Your task to perform on an android device: check data usage Image 0: 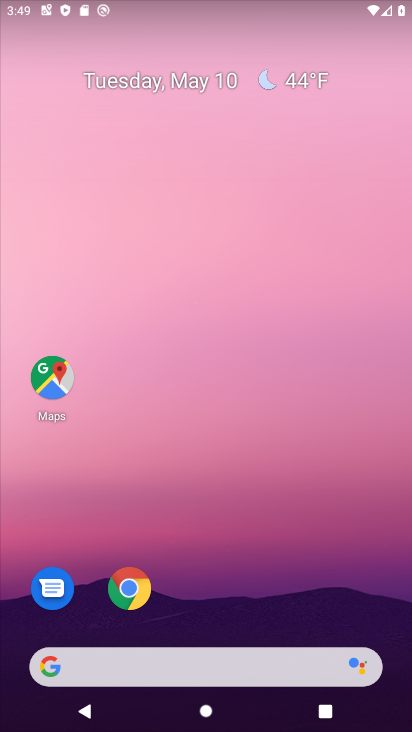
Step 0: drag from (363, 8) to (322, 540)
Your task to perform on an android device: check data usage Image 1: 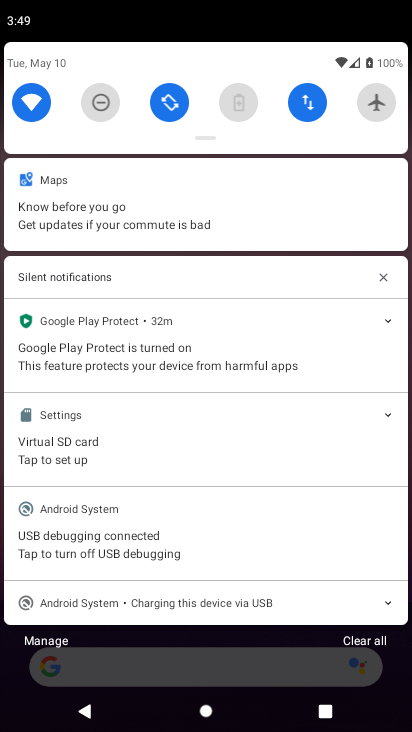
Step 1: click (310, 105)
Your task to perform on an android device: check data usage Image 2: 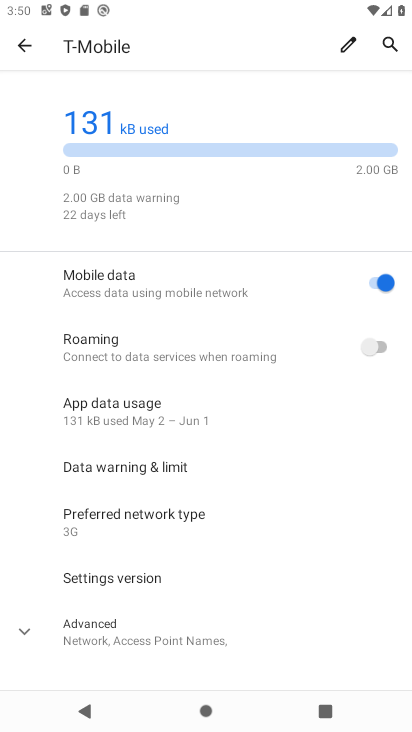
Step 2: task complete